Your task to perform on an android device: What's on my calendar tomorrow? Image 0: 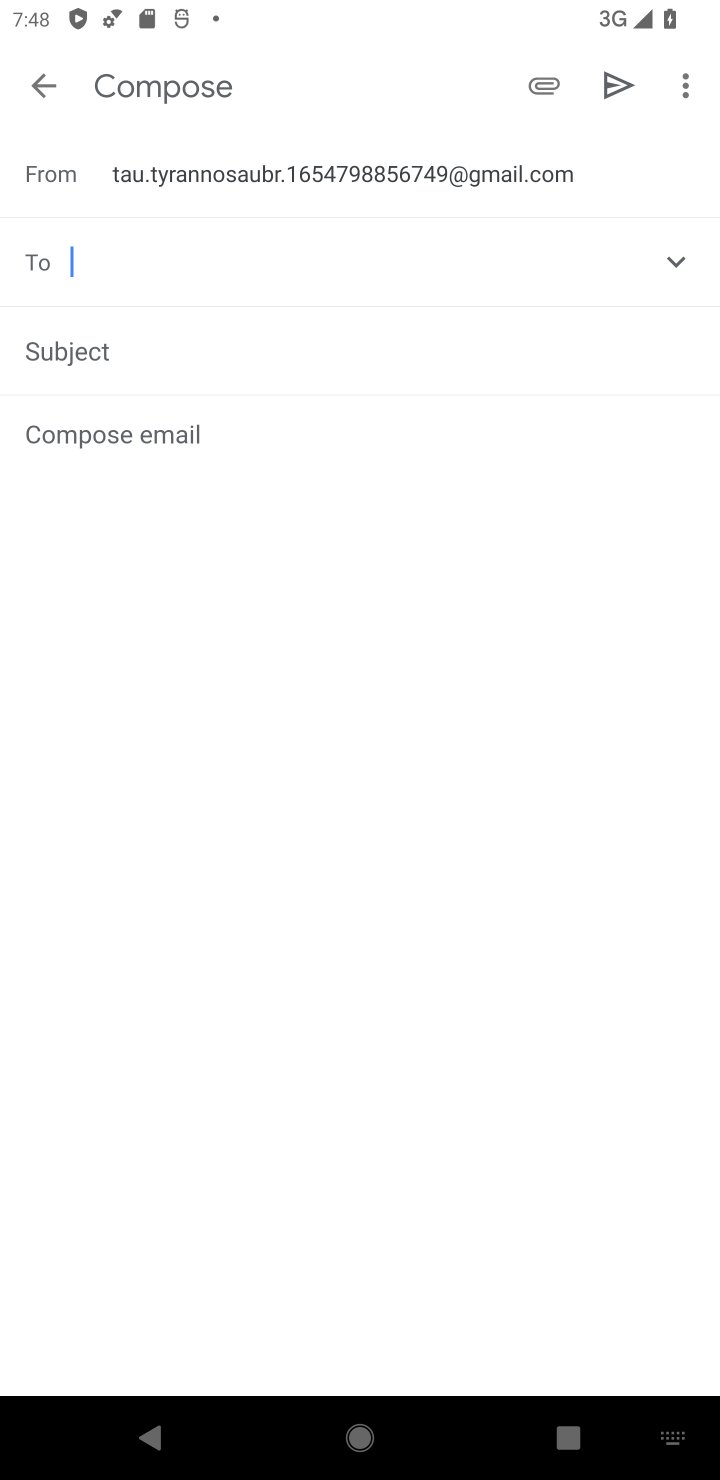
Step 0: press home button
Your task to perform on an android device: What's on my calendar tomorrow? Image 1: 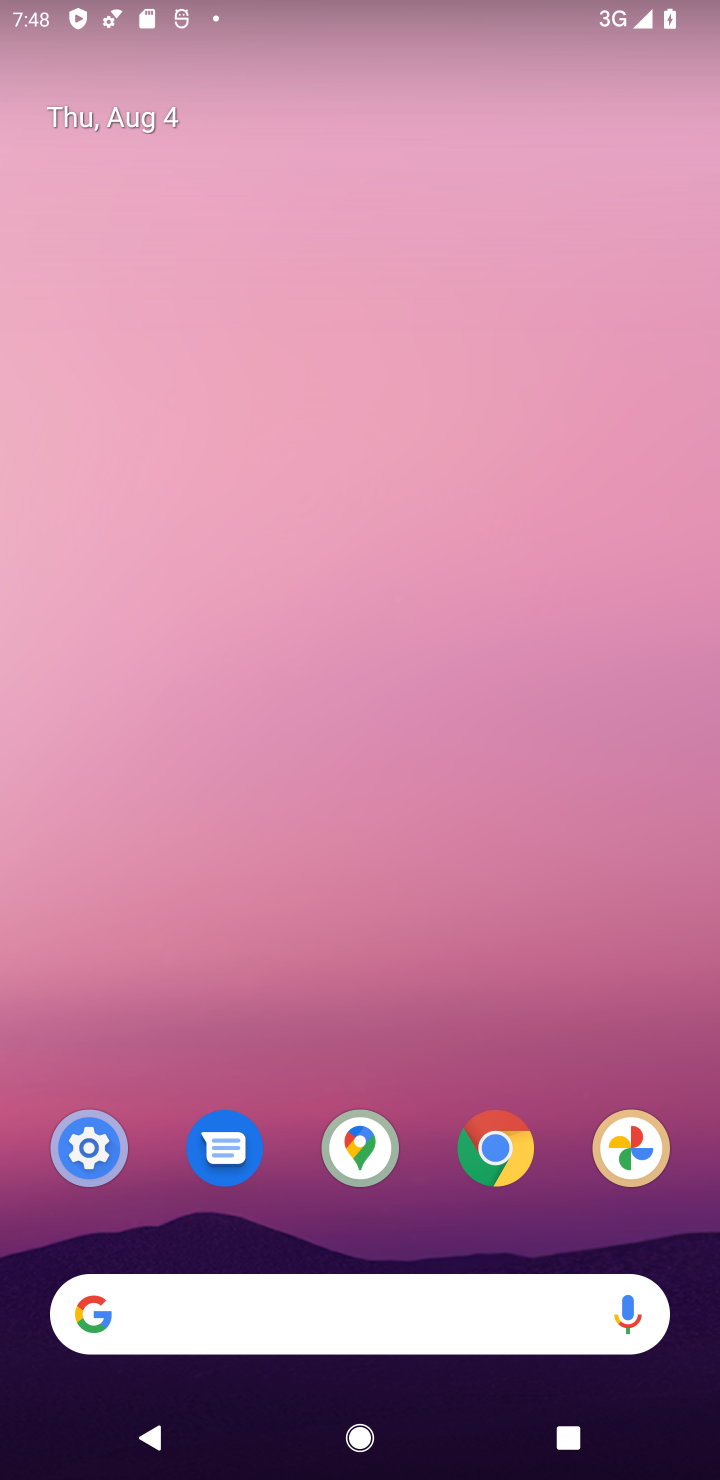
Step 1: drag from (434, 1229) to (230, 15)
Your task to perform on an android device: What's on my calendar tomorrow? Image 2: 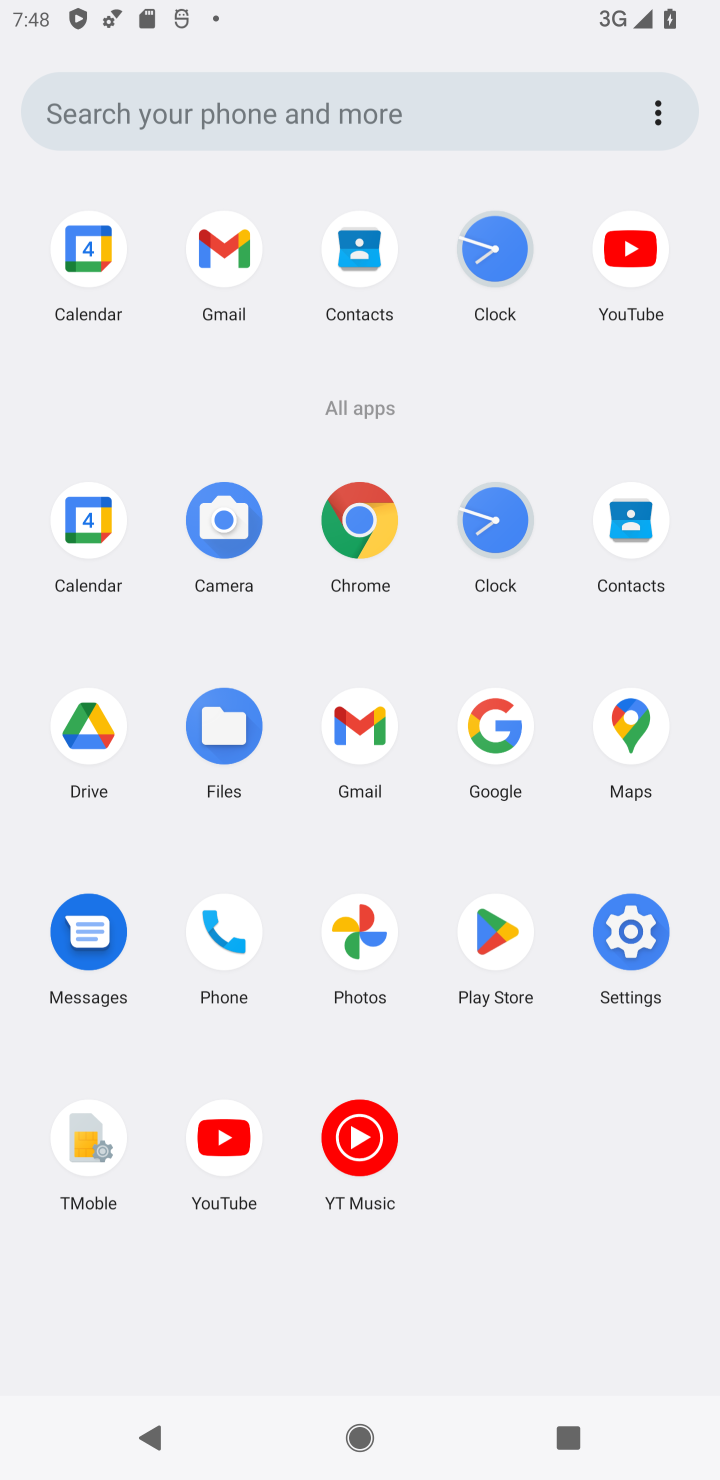
Step 2: click (100, 252)
Your task to perform on an android device: What's on my calendar tomorrow? Image 3: 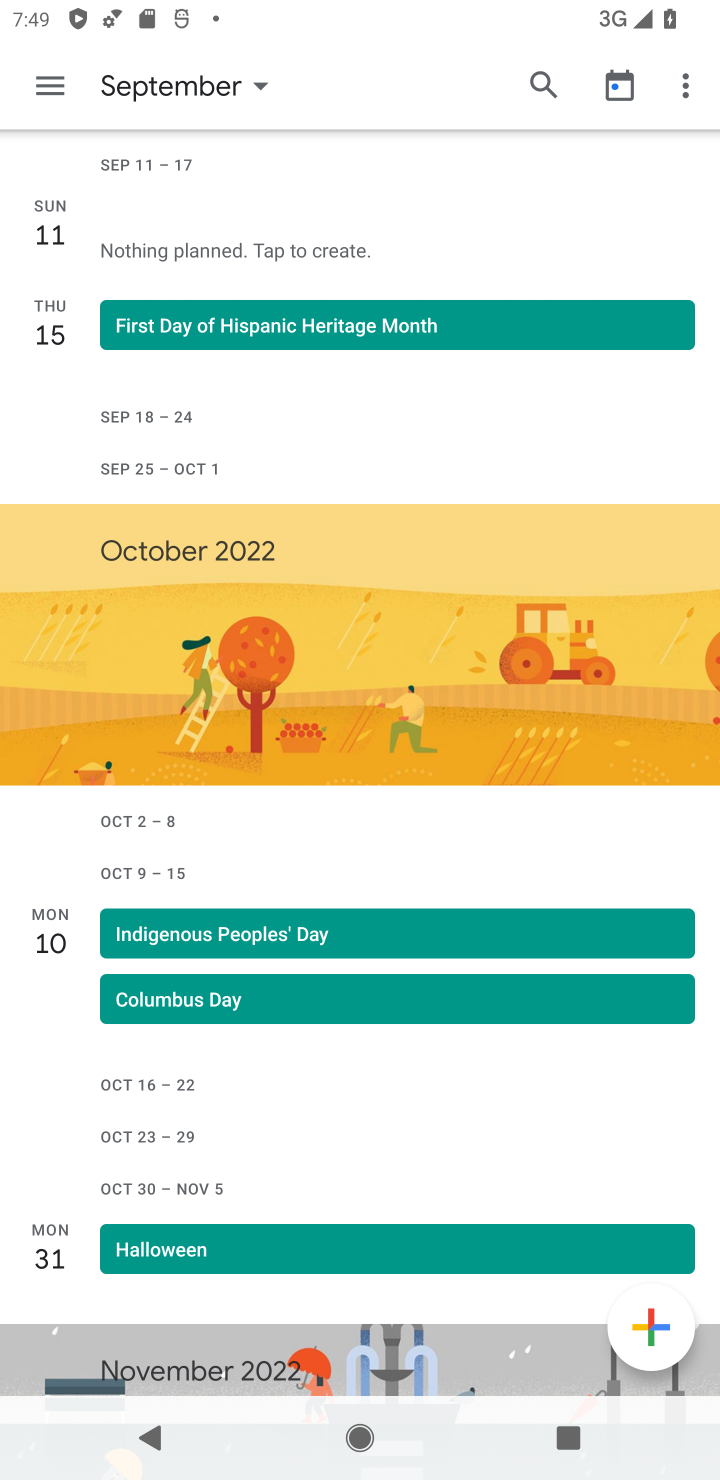
Step 3: click (44, 82)
Your task to perform on an android device: What's on my calendar tomorrow? Image 4: 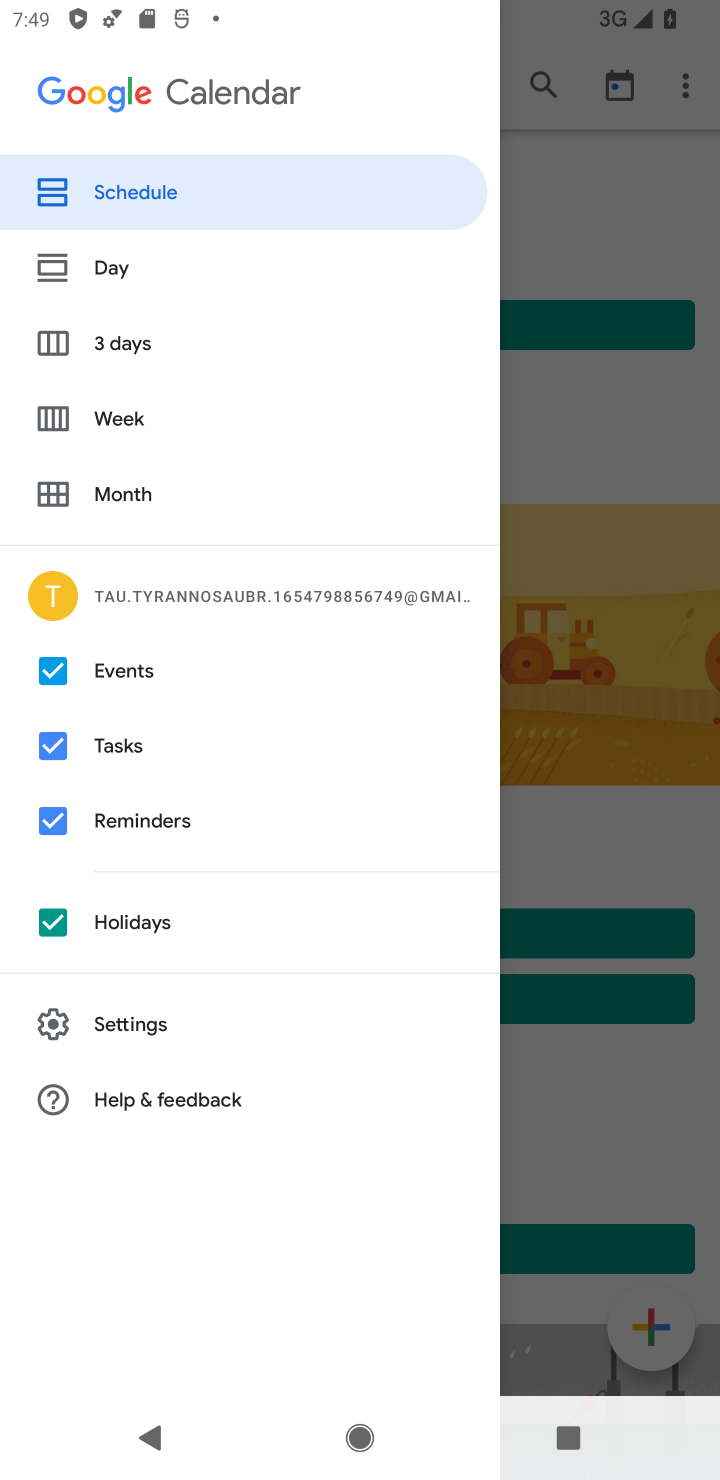
Step 4: click (109, 266)
Your task to perform on an android device: What's on my calendar tomorrow? Image 5: 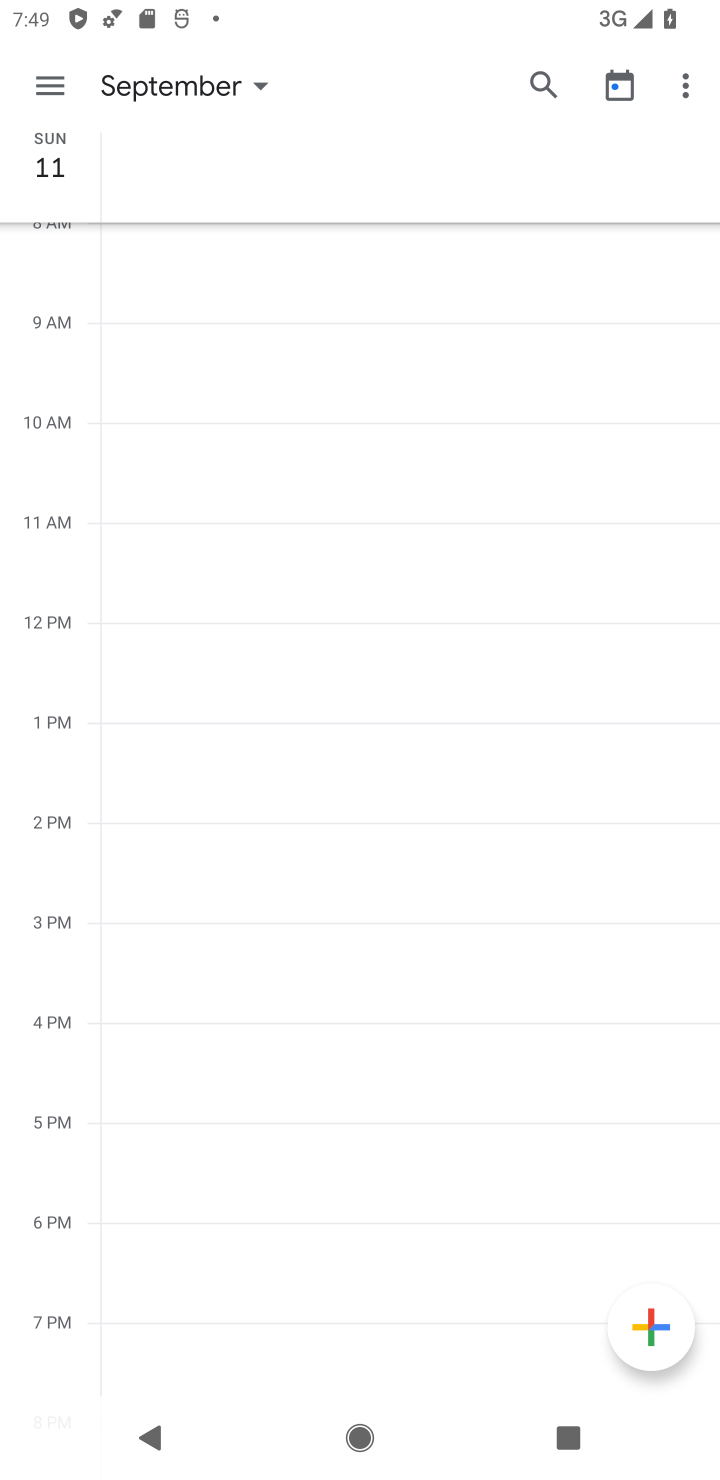
Step 5: click (182, 95)
Your task to perform on an android device: What's on my calendar tomorrow? Image 6: 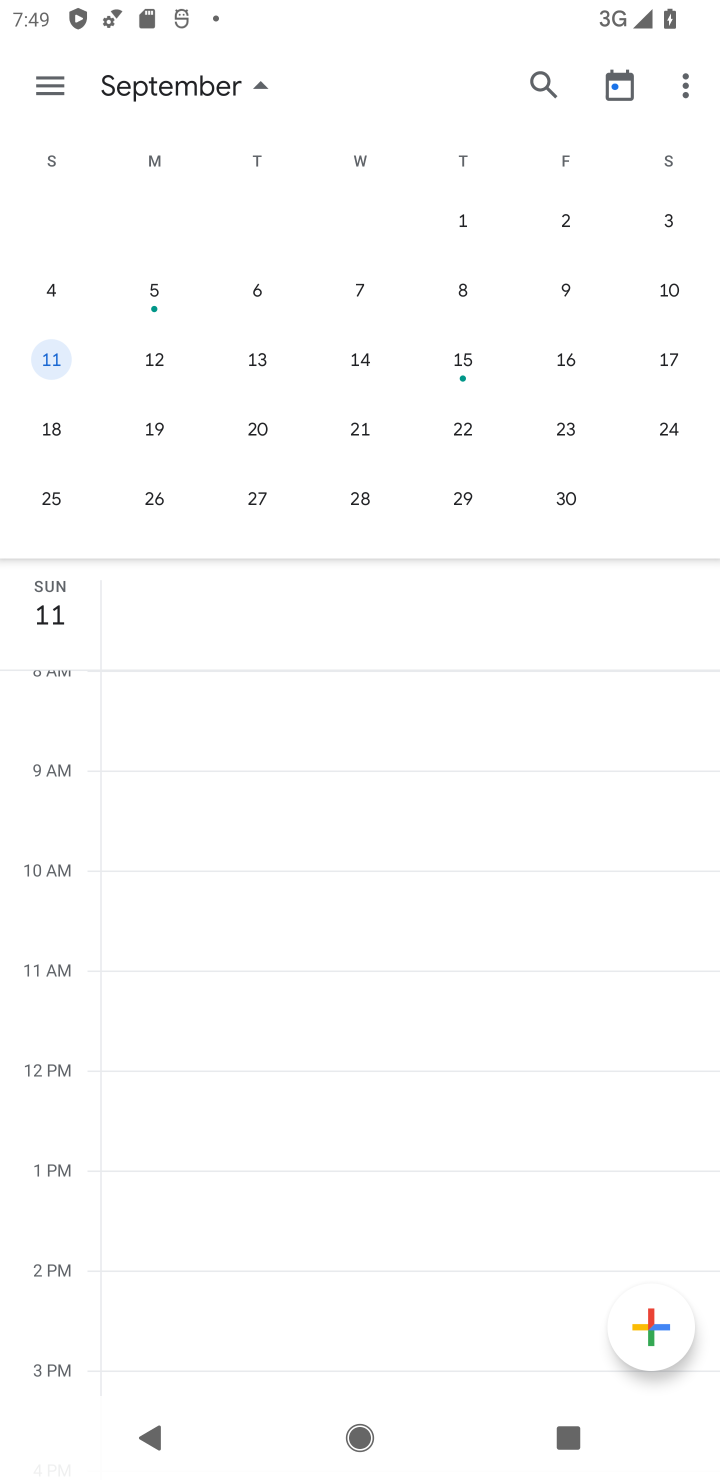
Step 6: drag from (53, 317) to (683, 349)
Your task to perform on an android device: What's on my calendar tomorrow? Image 7: 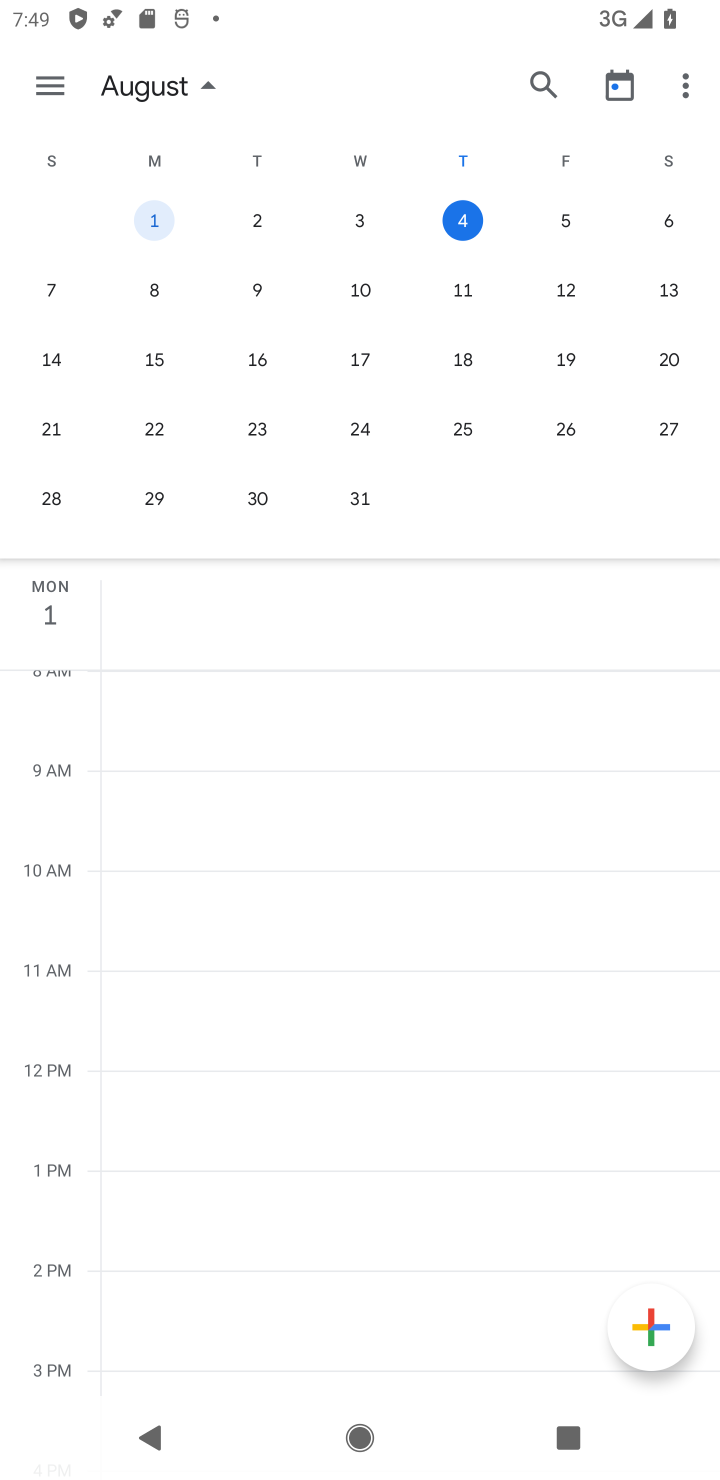
Step 7: click (571, 225)
Your task to perform on an android device: What's on my calendar tomorrow? Image 8: 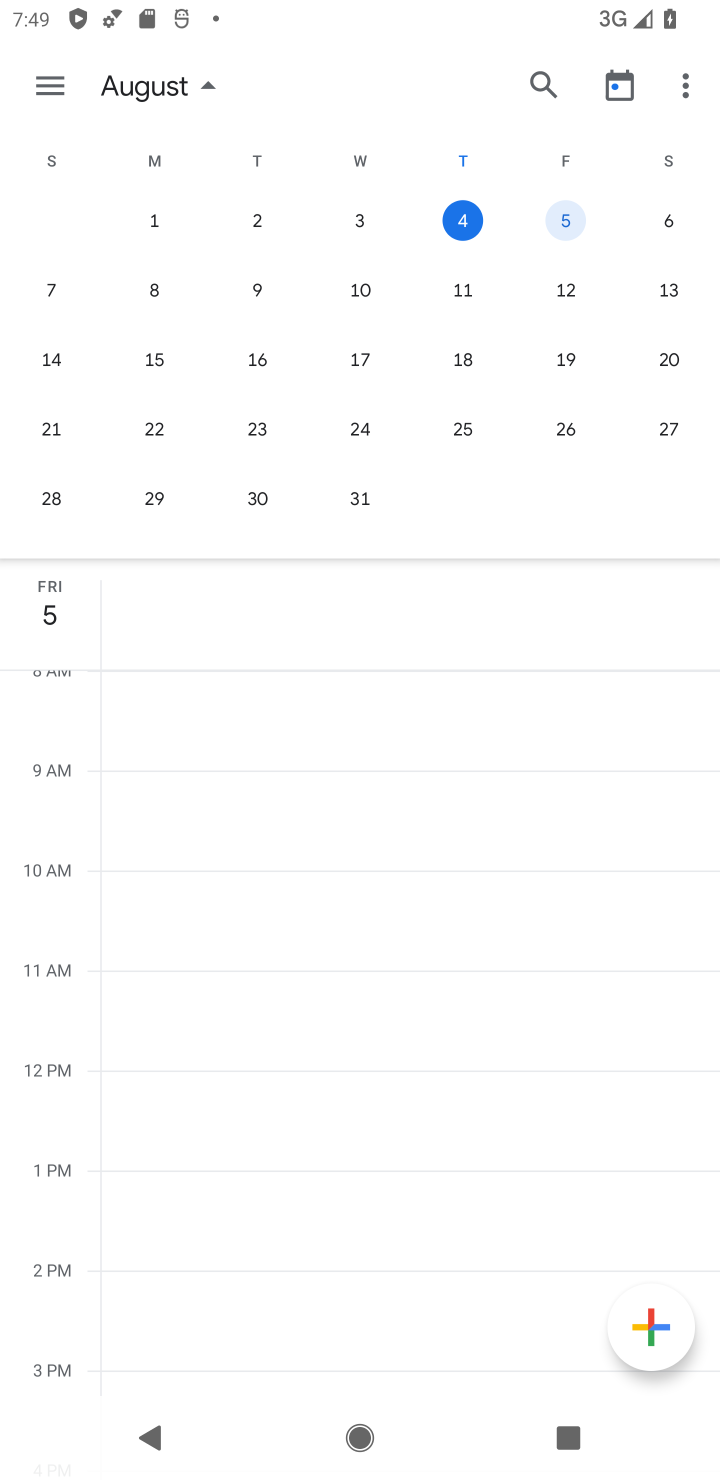
Step 8: task complete